Your task to perform on an android device: Open Google Maps Image 0: 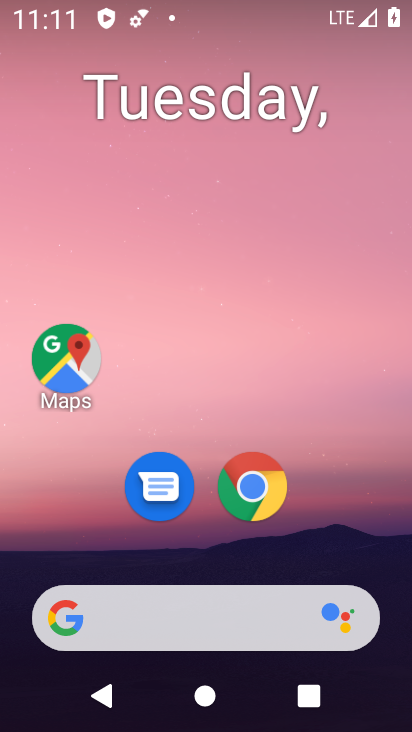
Step 0: drag from (330, 543) to (322, 137)
Your task to perform on an android device: Open Google Maps Image 1: 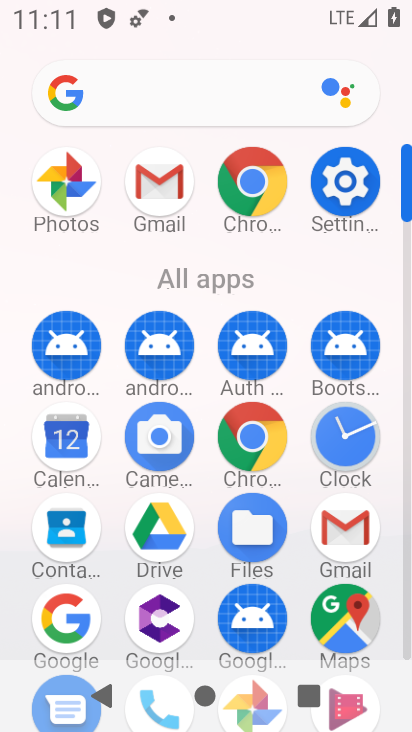
Step 1: drag from (385, 557) to (393, 297)
Your task to perform on an android device: Open Google Maps Image 2: 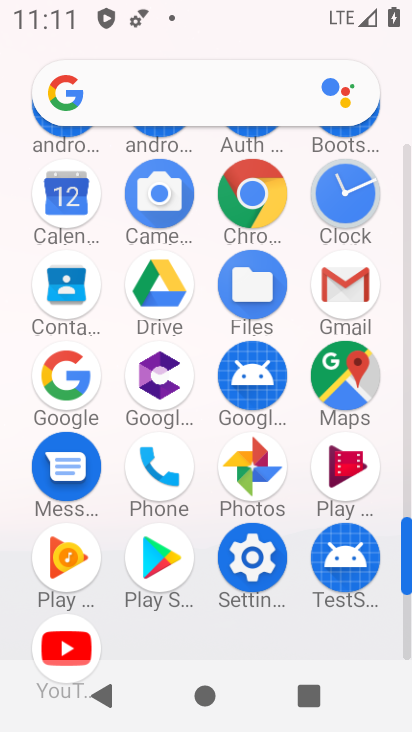
Step 2: click (356, 371)
Your task to perform on an android device: Open Google Maps Image 3: 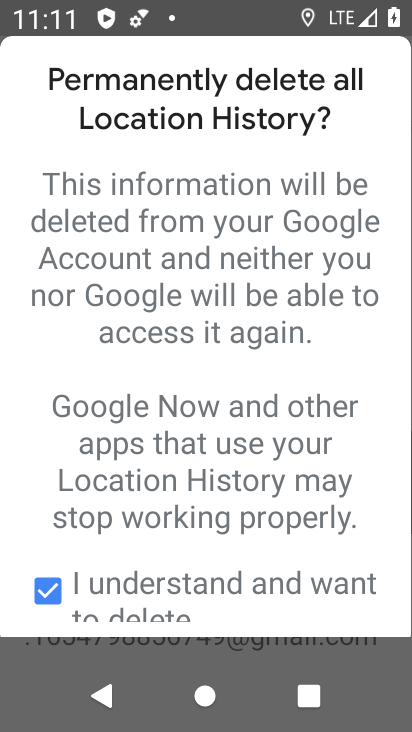
Step 3: task complete